Your task to perform on an android device: When is my next appointment? Image 0: 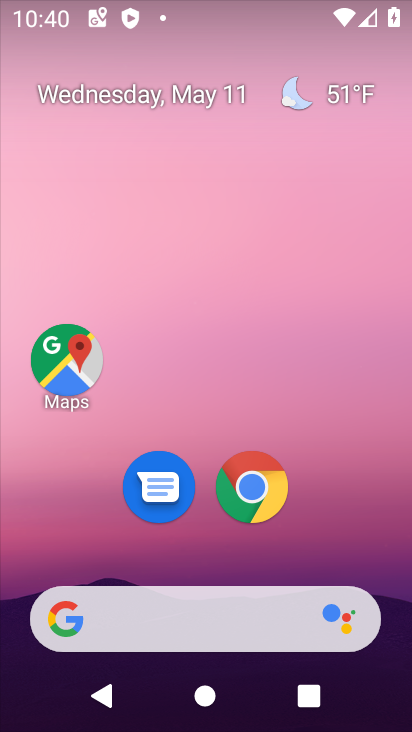
Step 0: drag from (329, 482) to (296, 161)
Your task to perform on an android device: When is my next appointment? Image 1: 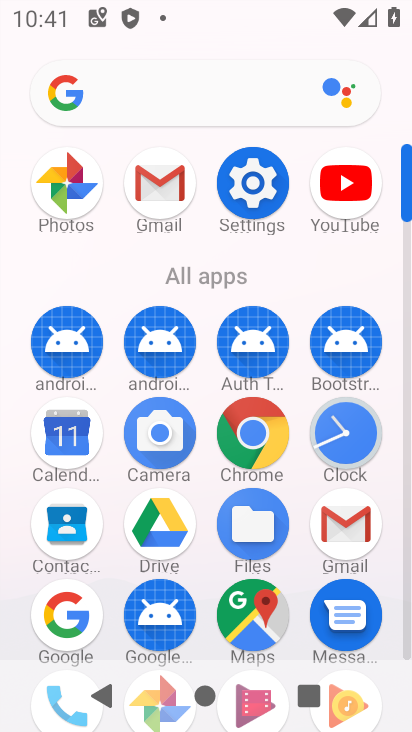
Step 1: click (72, 446)
Your task to perform on an android device: When is my next appointment? Image 2: 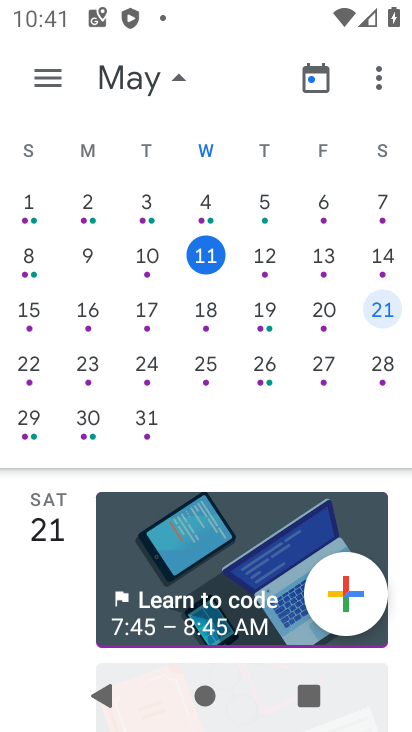
Step 2: click (264, 265)
Your task to perform on an android device: When is my next appointment? Image 3: 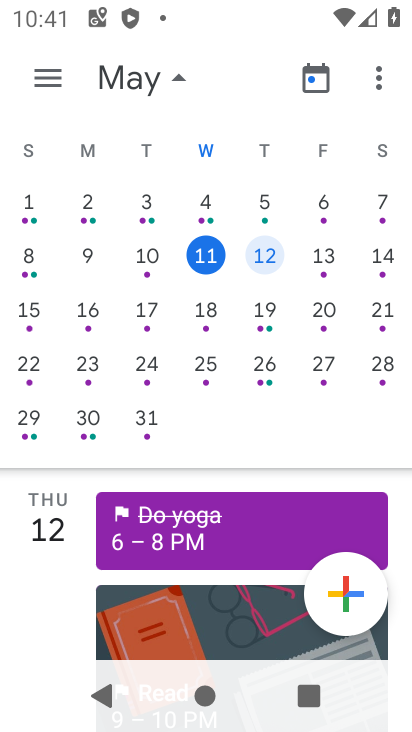
Step 3: task complete